Your task to perform on an android device: change the clock style Image 0: 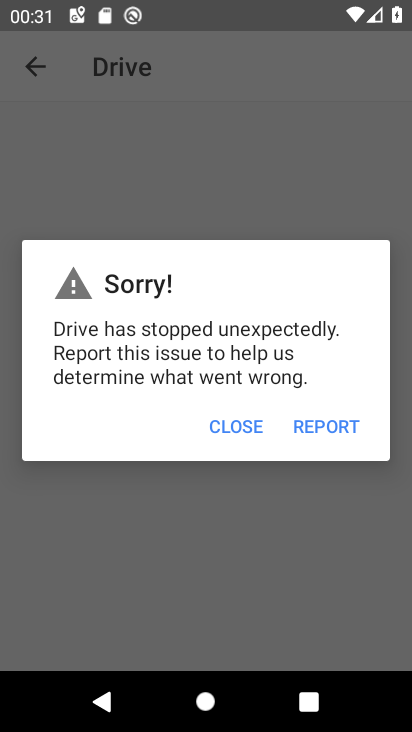
Step 0: press home button
Your task to perform on an android device: change the clock style Image 1: 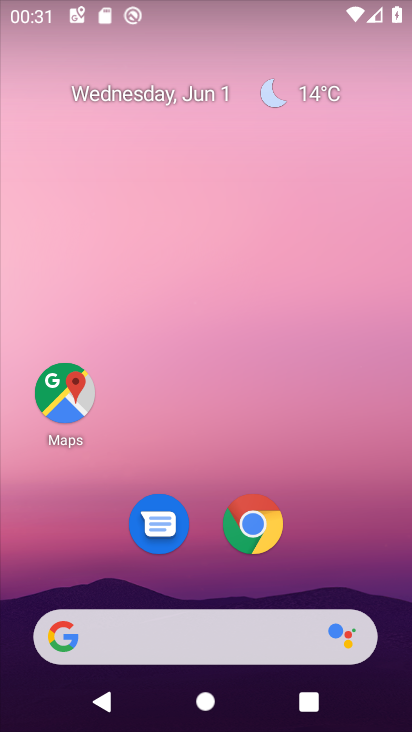
Step 1: drag from (219, 582) to (201, 9)
Your task to perform on an android device: change the clock style Image 2: 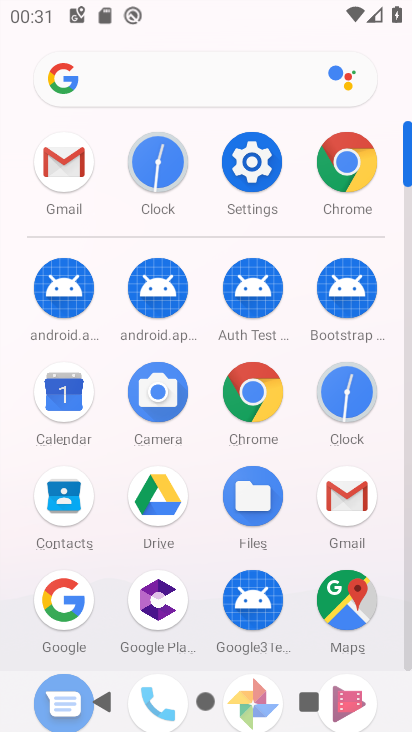
Step 2: click (153, 139)
Your task to perform on an android device: change the clock style Image 3: 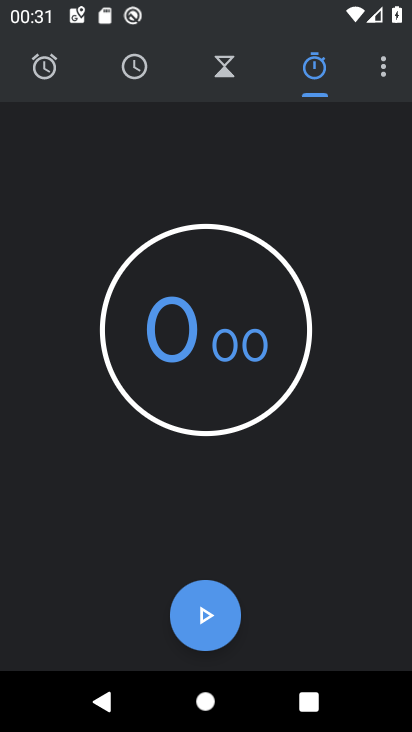
Step 3: click (132, 59)
Your task to perform on an android device: change the clock style Image 4: 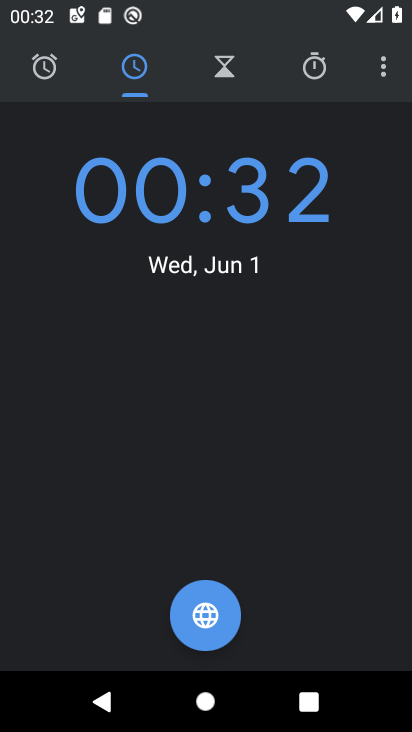
Step 4: click (384, 68)
Your task to perform on an android device: change the clock style Image 5: 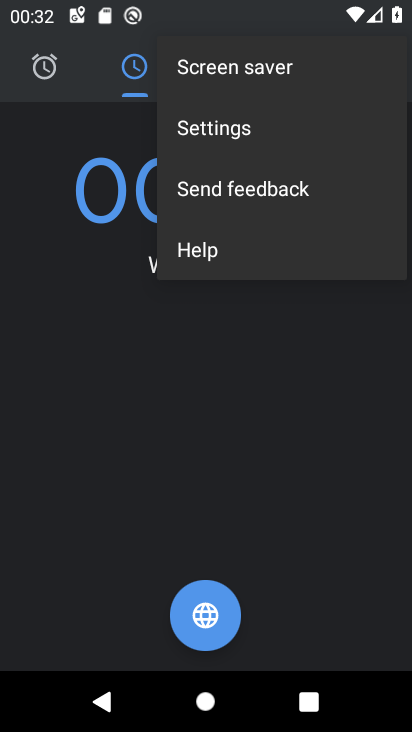
Step 5: click (309, 132)
Your task to perform on an android device: change the clock style Image 6: 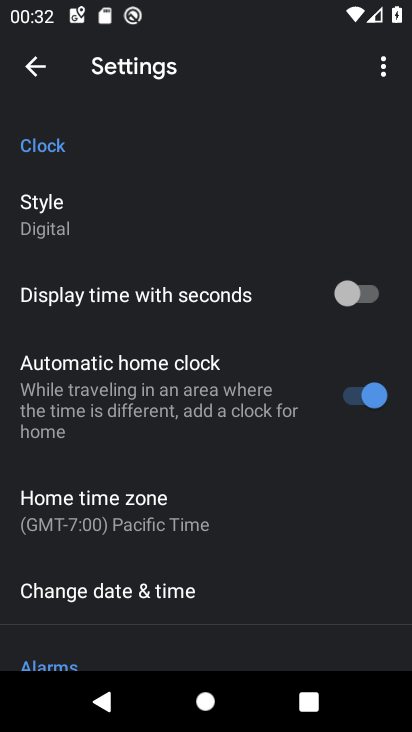
Step 6: click (140, 214)
Your task to perform on an android device: change the clock style Image 7: 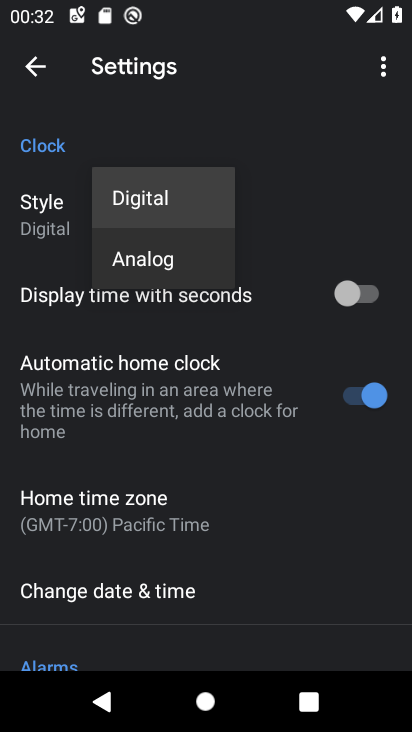
Step 7: click (152, 254)
Your task to perform on an android device: change the clock style Image 8: 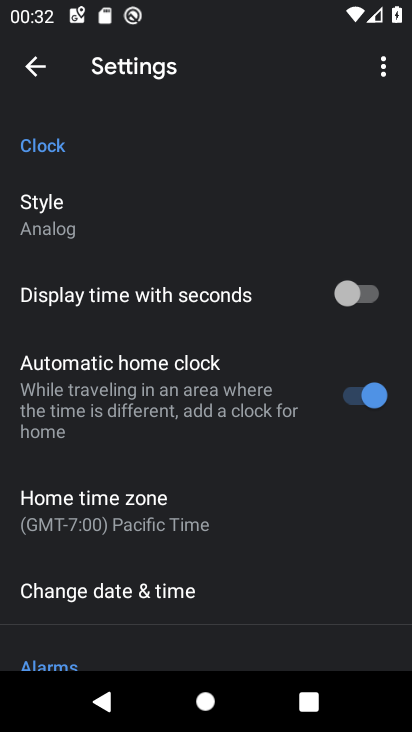
Step 8: click (27, 67)
Your task to perform on an android device: change the clock style Image 9: 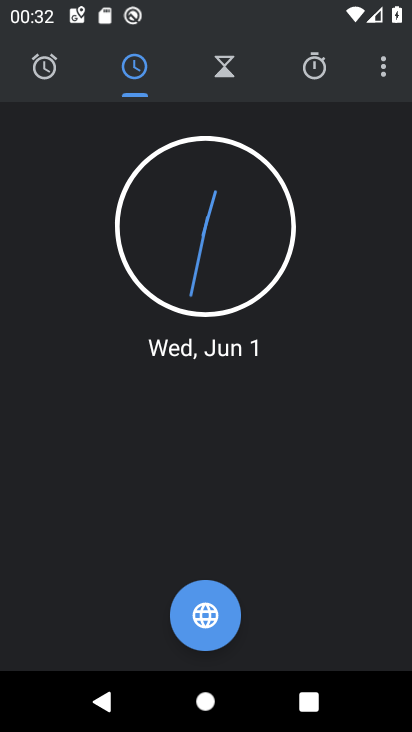
Step 9: task complete